Your task to perform on an android device: toggle sleep mode Image 0: 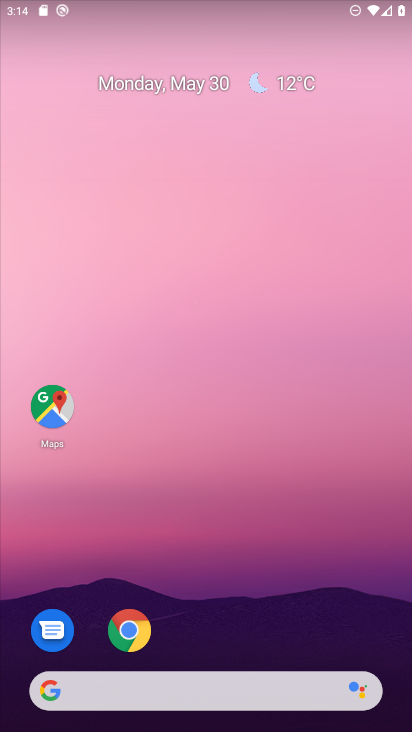
Step 0: drag from (252, 684) to (172, 76)
Your task to perform on an android device: toggle sleep mode Image 1: 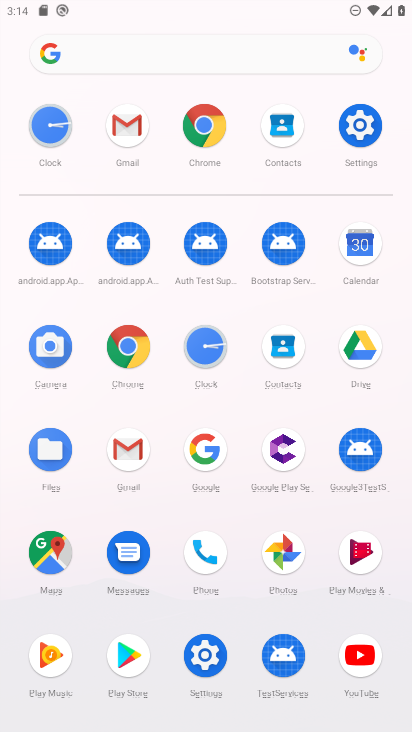
Step 1: click (350, 127)
Your task to perform on an android device: toggle sleep mode Image 2: 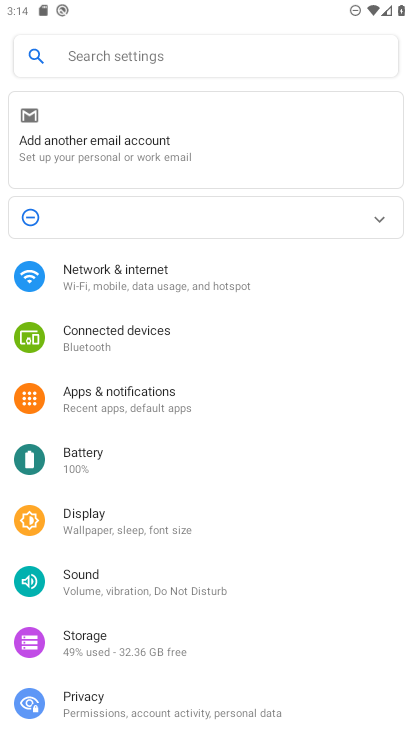
Step 2: click (141, 532)
Your task to perform on an android device: toggle sleep mode Image 3: 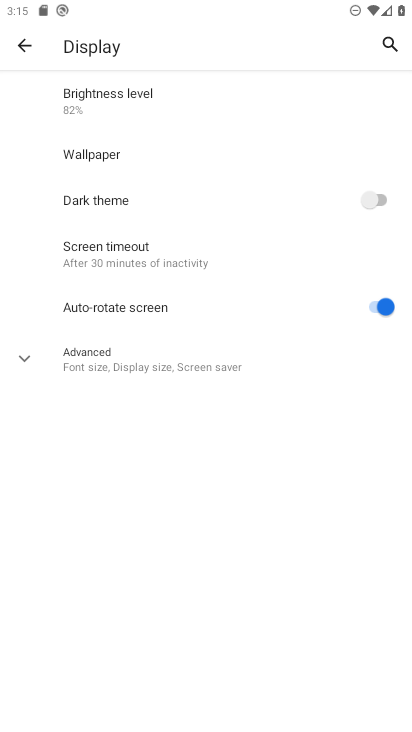
Step 3: click (149, 368)
Your task to perform on an android device: toggle sleep mode Image 4: 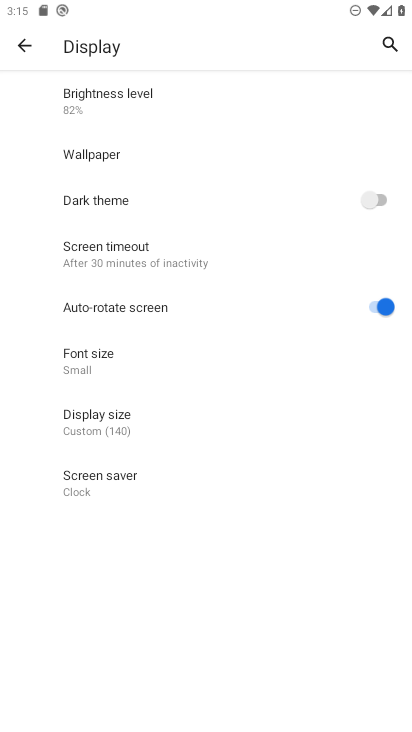
Step 4: task complete